Your task to perform on an android device: Open Wikipedia Image 0: 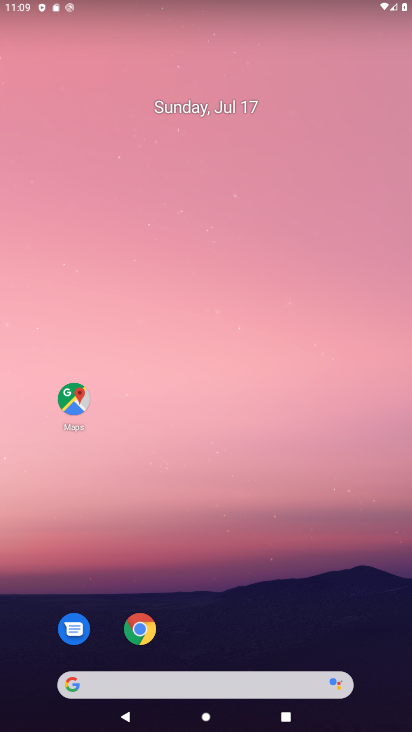
Step 0: drag from (237, 635) to (235, 168)
Your task to perform on an android device: Open Wikipedia Image 1: 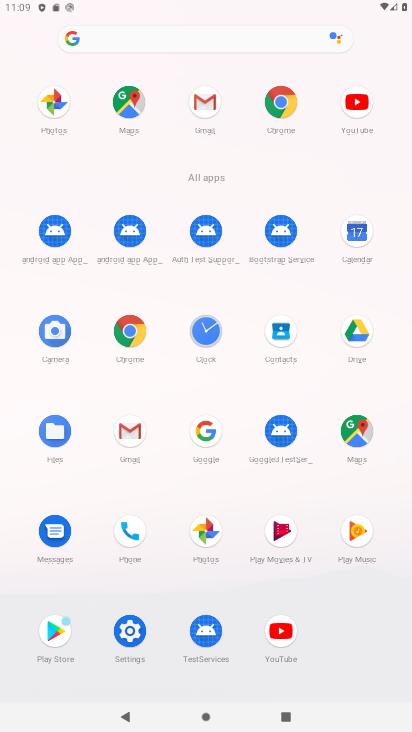
Step 1: click (274, 102)
Your task to perform on an android device: Open Wikipedia Image 2: 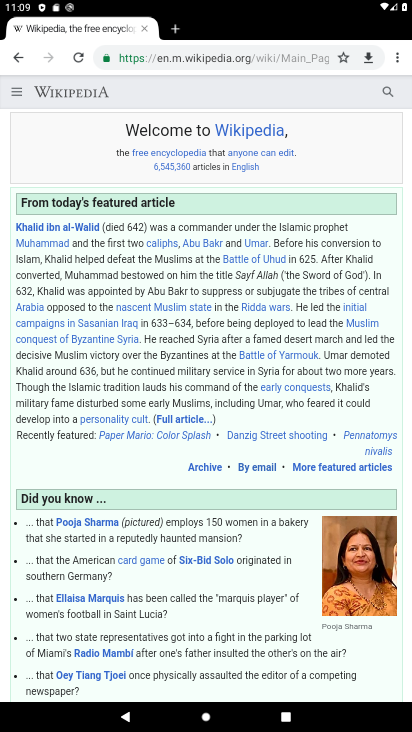
Step 2: task complete